Your task to perform on an android device: What's the weather? Image 0: 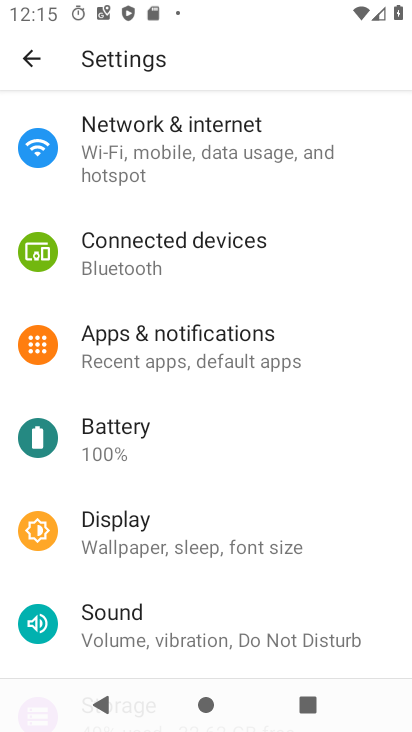
Step 0: press home button
Your task to perform on an android device: What's the weather? Image 1: 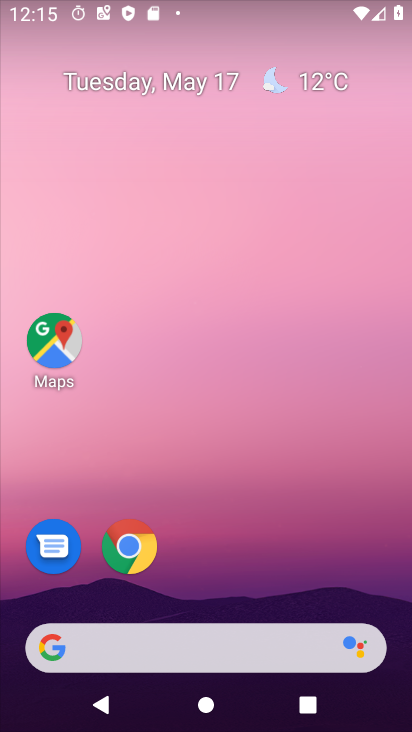
Step 1: click (301, 77)
Your task to perform on an android device: What's the weather? Image 2: 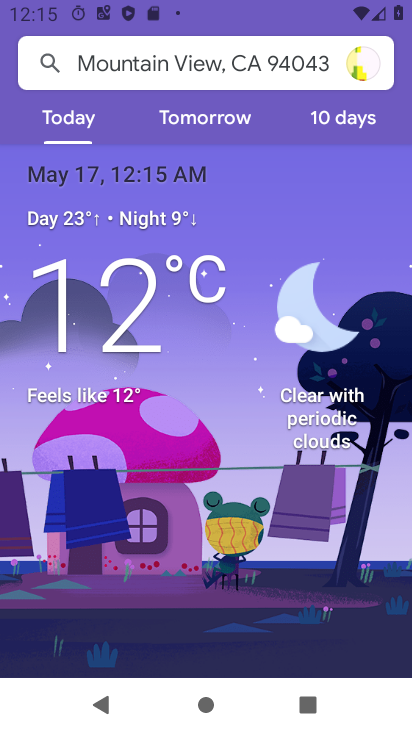
Step 2: task complete